Your task to perform on an android device: turn off airplane mode Image 0: 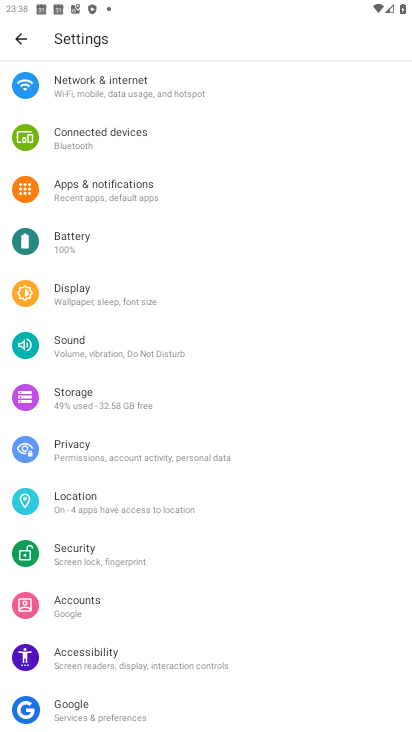
Step 0: drag from (270, 163) to (282, 465)
Your task to perform on an android device: turn off airplane mode Image 1: 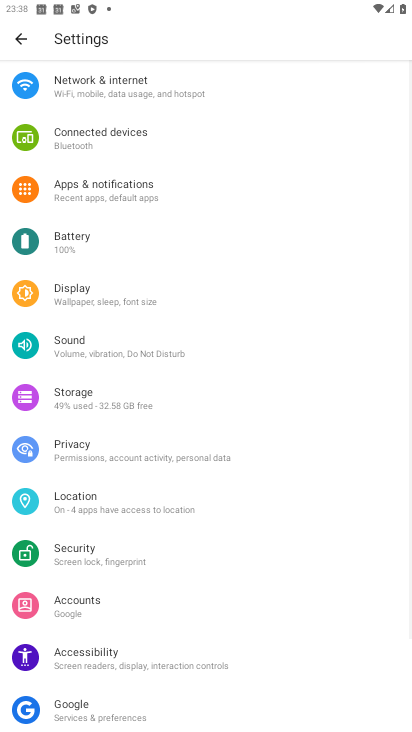
Step 1: click (207, 87)
Your task to perform on an android device: turn off airplane mode Image 2: 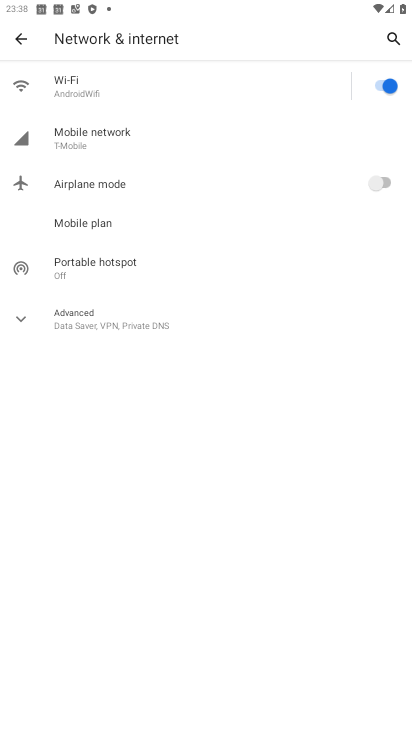
Step 2: click (42, 310)
Your task to perform on an android device: turn off airplane mode Image 3: 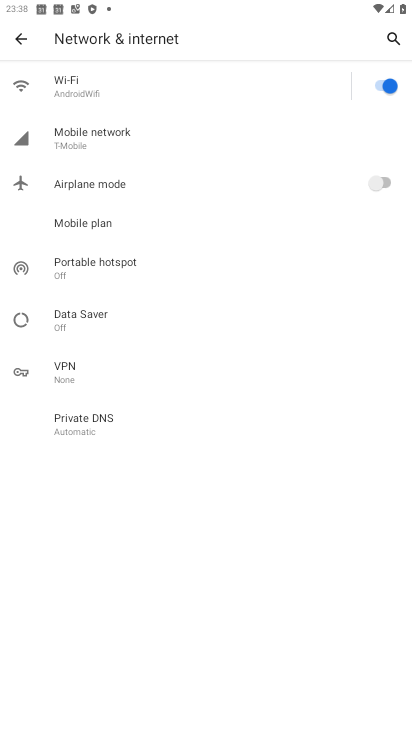
Step 3: task complete